Your task to perform on an android device: allow notifications from all sites in the chrome app Image 0: 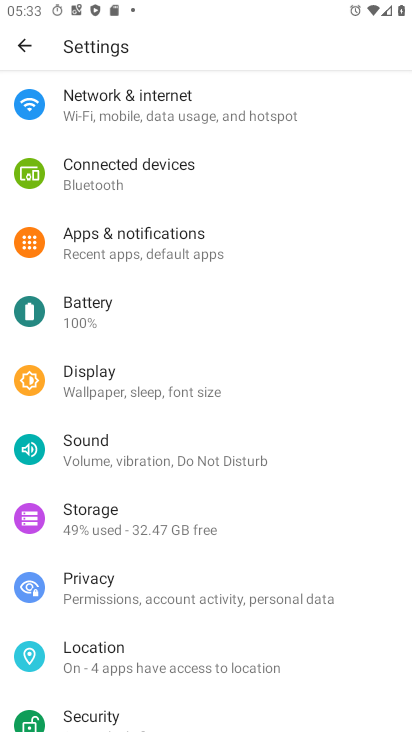
Step 0: press home button
Your task to perform on an android device: allow notifications from all sites in the chrome app Image 1: 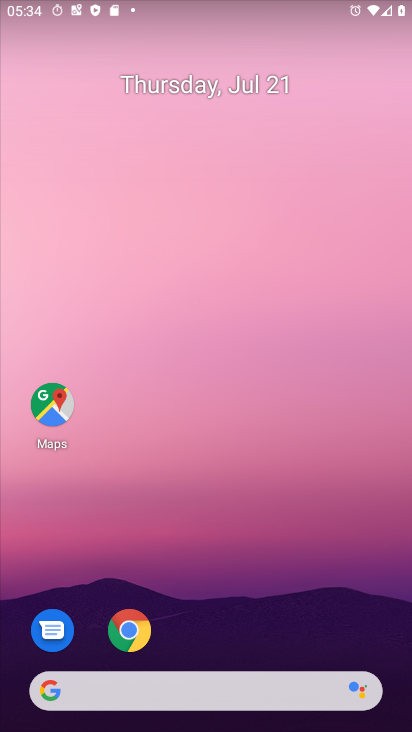
Step 1: click (129, 630)
Your task to perform on an android device: allow notifications from all sites in the chrome app Image 2: 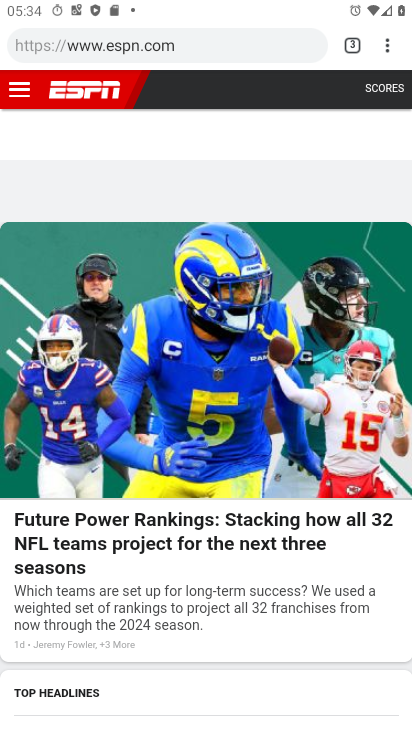
Step 2: click (386, 40)
Your task to perform on an android device: allow notifications from all sites in the chrome app Image 3: 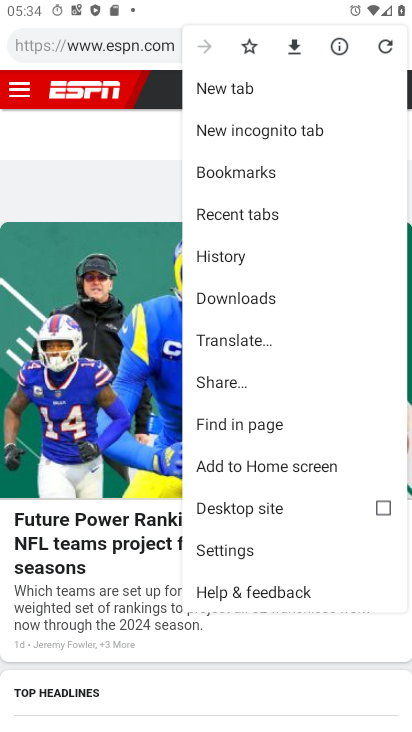
Step 3: click (226, 549)
Your task to perform on an android device: allow notifications from all sites in the chrome app Image 4: 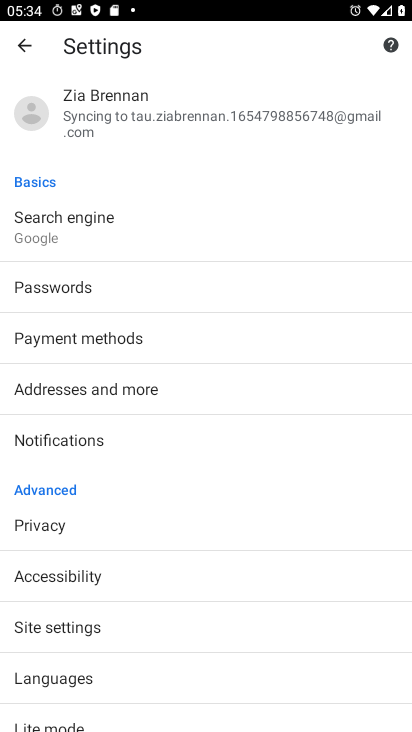
Step 4: click (63, 624)
Your task to perform on an android device: allow notifications from all sites in the chrome app Image 5: 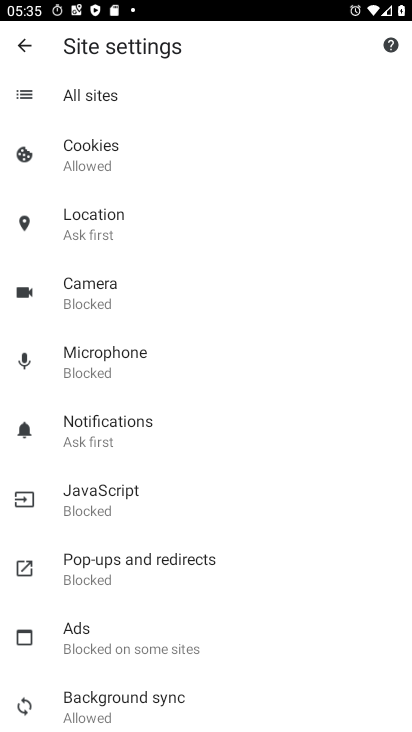
Step 5: click (136, 422)
Your task to perform on an android device: allow notifications from all sites in the chrome app Image 6: 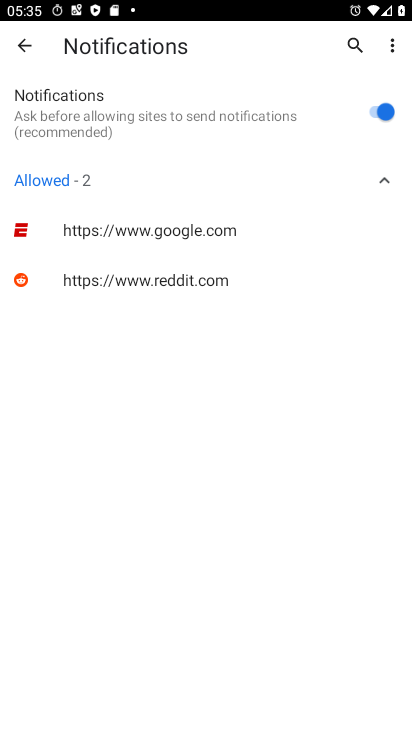
Step 6: task complete